Your task to perform on an android device: turn off smart reply in the gmail app Image 0: 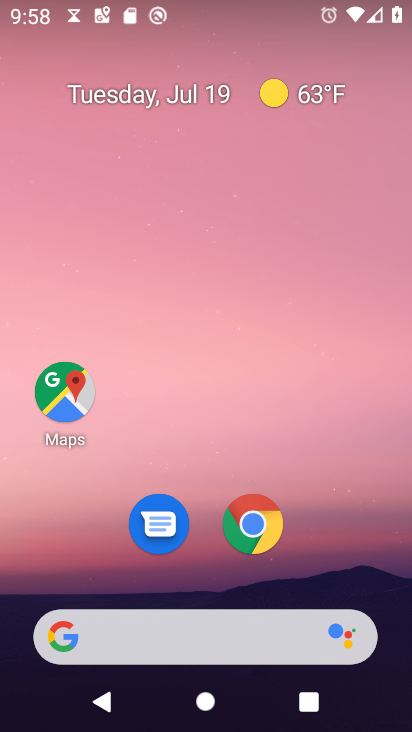
Step 0: press home button
Your task to perform on an android device: turn off smart reply in the gmail app Image 1: 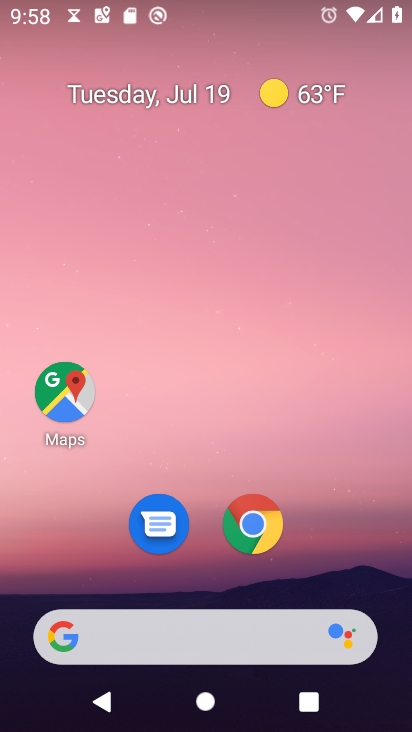
Step 1: drag from (159, 641) to (278, 138)
Your task to perform on an android device: turn off smart reply in the gmail app Image 2: 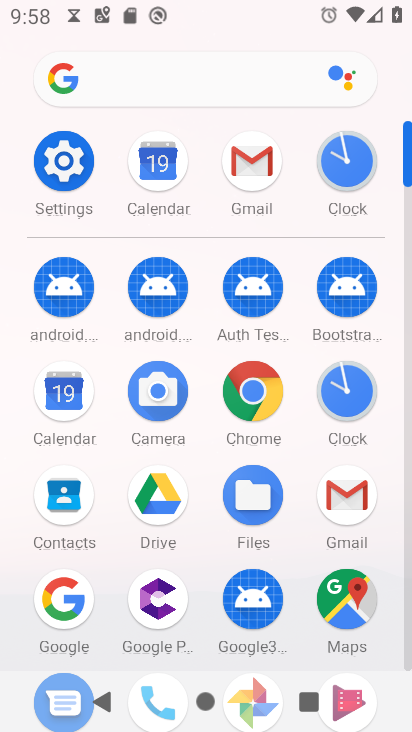
Step 2: click (351, 512)
Your task to perform on an android device: turn off smart reply in the gmail app Image 3: 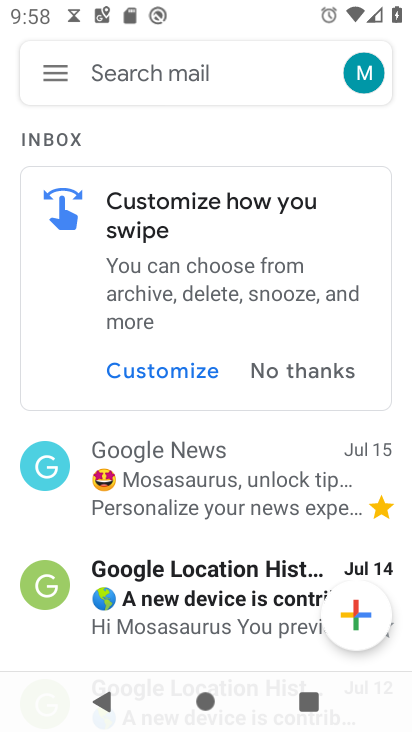
Step 3: click (51, 68)
Your task to perform on an android device: turn off smart reply in the gmail app Image 4: 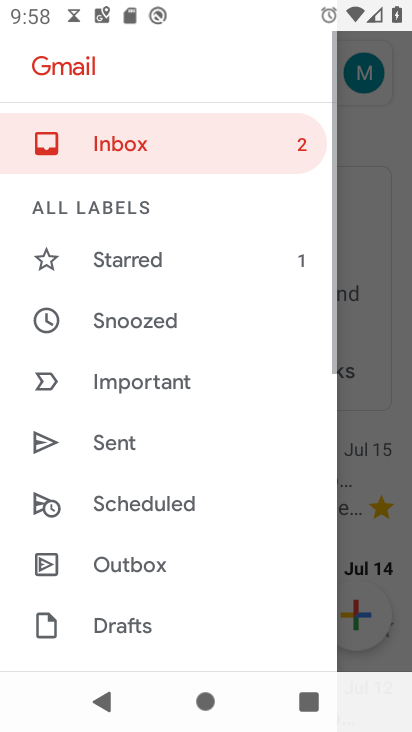
Step 4: drag from (192, 576) to (305, 123)
Your task to perform on an android device: turn off smart reply in the gmail app Image 5: 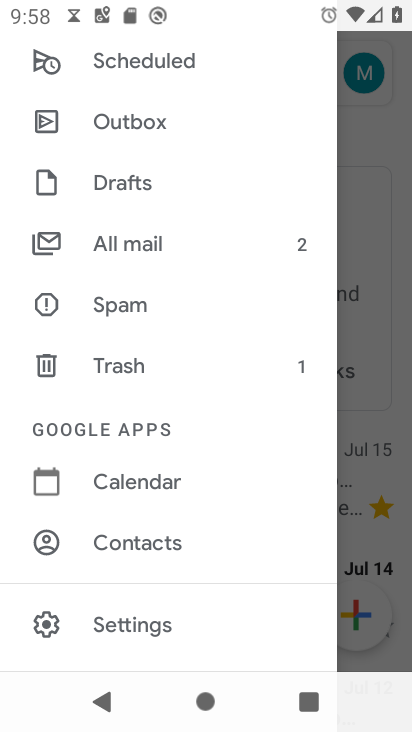
Step 5: drag from (220, 572) to (320, 86)
Your task to perform on an android device: turn off smart reply in the gmail app Image 6: 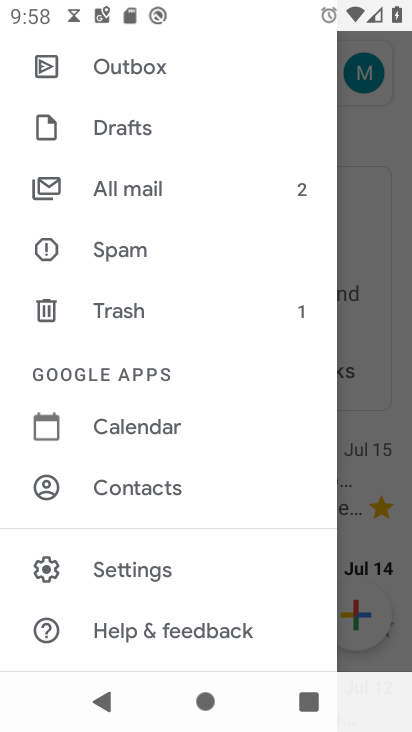
Step 6: click (136, 570)
Your task to perform on an android device: turn off smart reply in the gmail app Image 7: 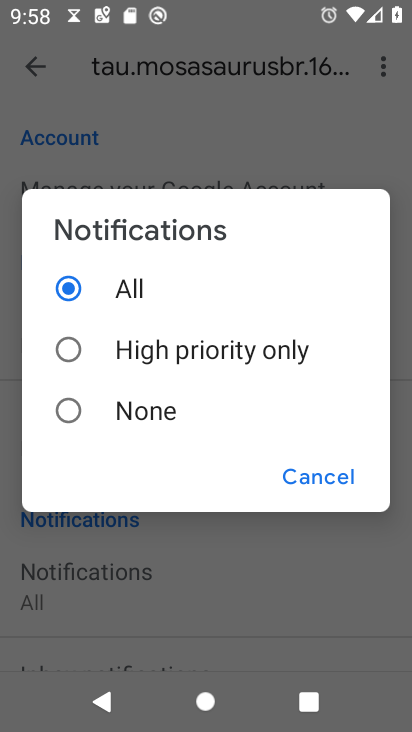
Step 7: click (287, 480)
Your task to perform on an android device: turn off smart reply in the gmail app Image 8: 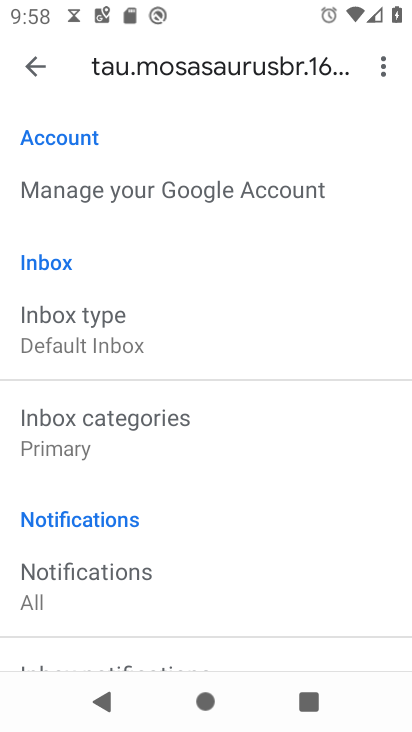
Step 8: drag from (221, 583) to (317, 157)
Your task to perform on an android device: turn off smart reply in the gmail app Image 9: 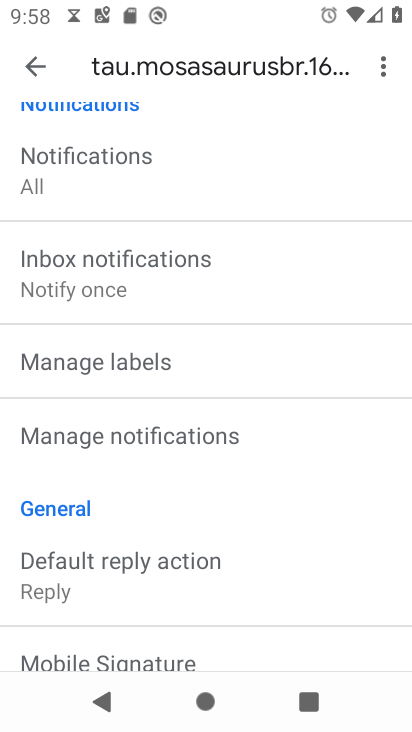
Step 9: drag from (210, 562) to (323, 97)
Your task to perform on an android device: turn off smart reply in the gmail app Image 10: 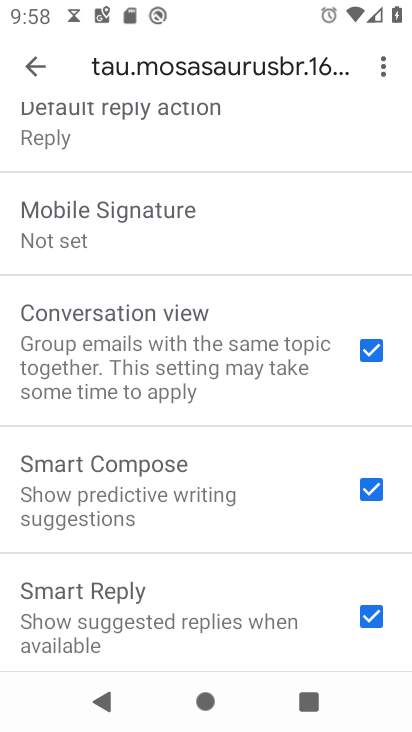
Step 10: click (367, 616)
Your task to perform on an android device: turn off smart reply in the gmail app Image 11: 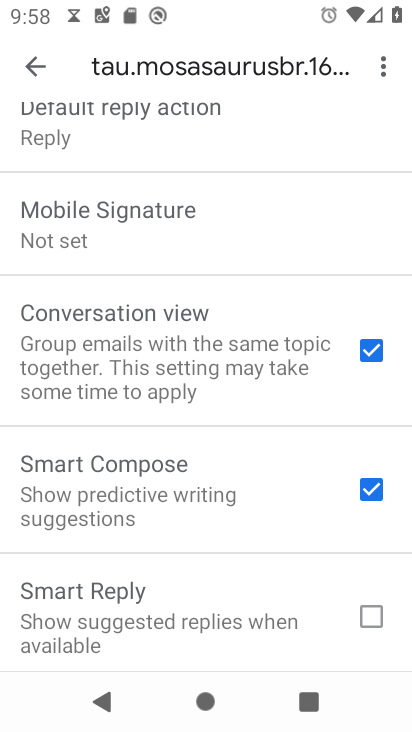
Step 11: task complete